Your task to perform on an android device: Open Google Maps and go to "Timeline" Image 0: 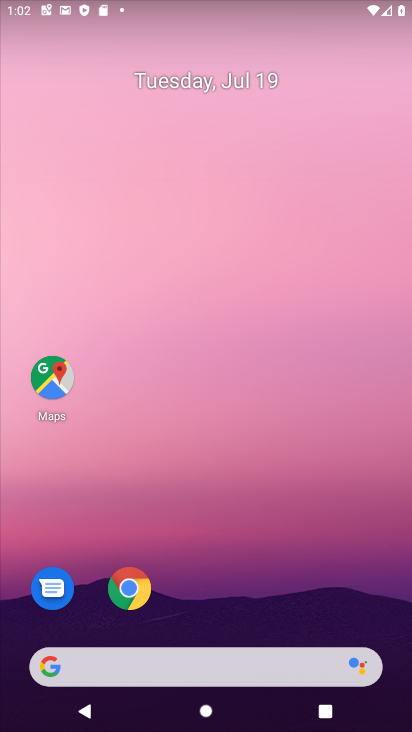
Step 0: click (40, 379)
Your task to perform on an android device: Open Google Maps and go to "Timeline" Image 1: 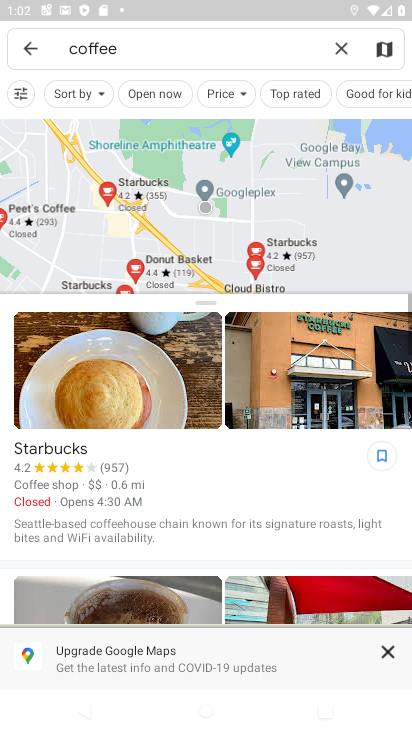
Step 1: click (337, 49)
Your task to perform on an android device: Open Google Maps and go to "Timeline" Image 2: 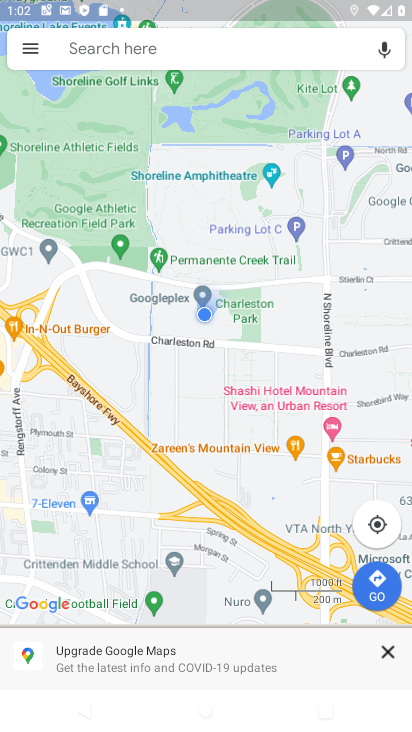
Step 2: click (26, 54)
Your task to perform on an android device: Open Google Maps and go to "Timeline" Image 3: 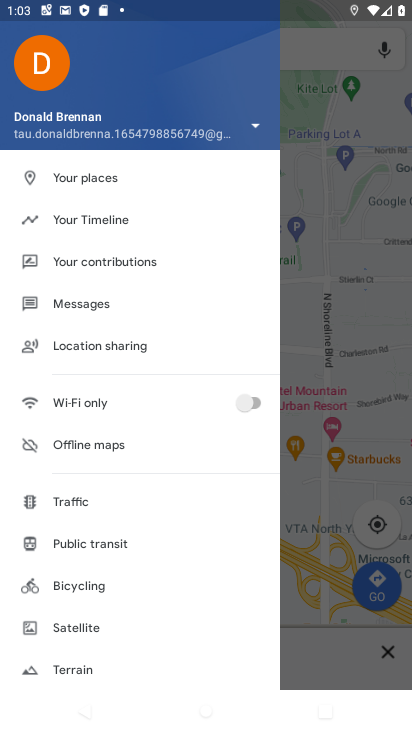
Step 3: click (80, 225)
Your task to perform on an android device: Open Google Maps and go to "Timeline" Image 4: 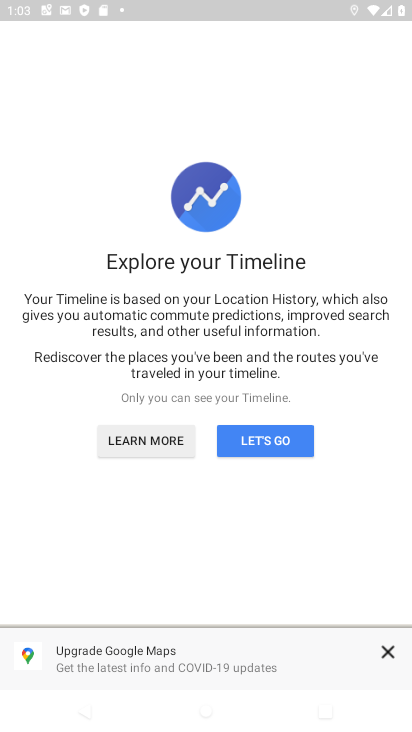
Step 4: click (248, 436)
Your task to perform on an android device: Open Google Maps and go to "Timeline" Image 5: 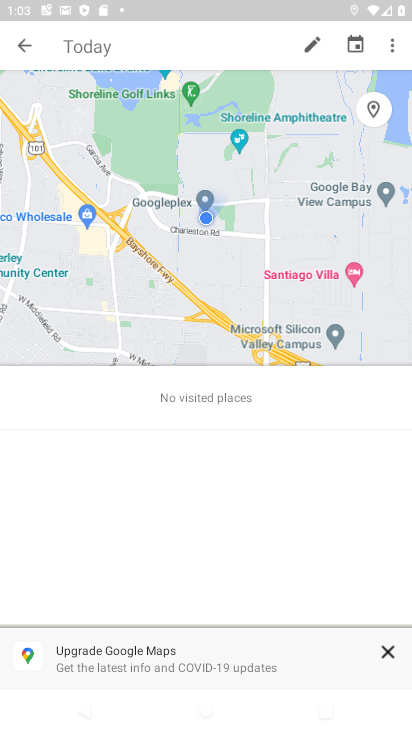
Step 5: task complete